Your task to perform on an android device: see creations saved in the google photos Image 0: 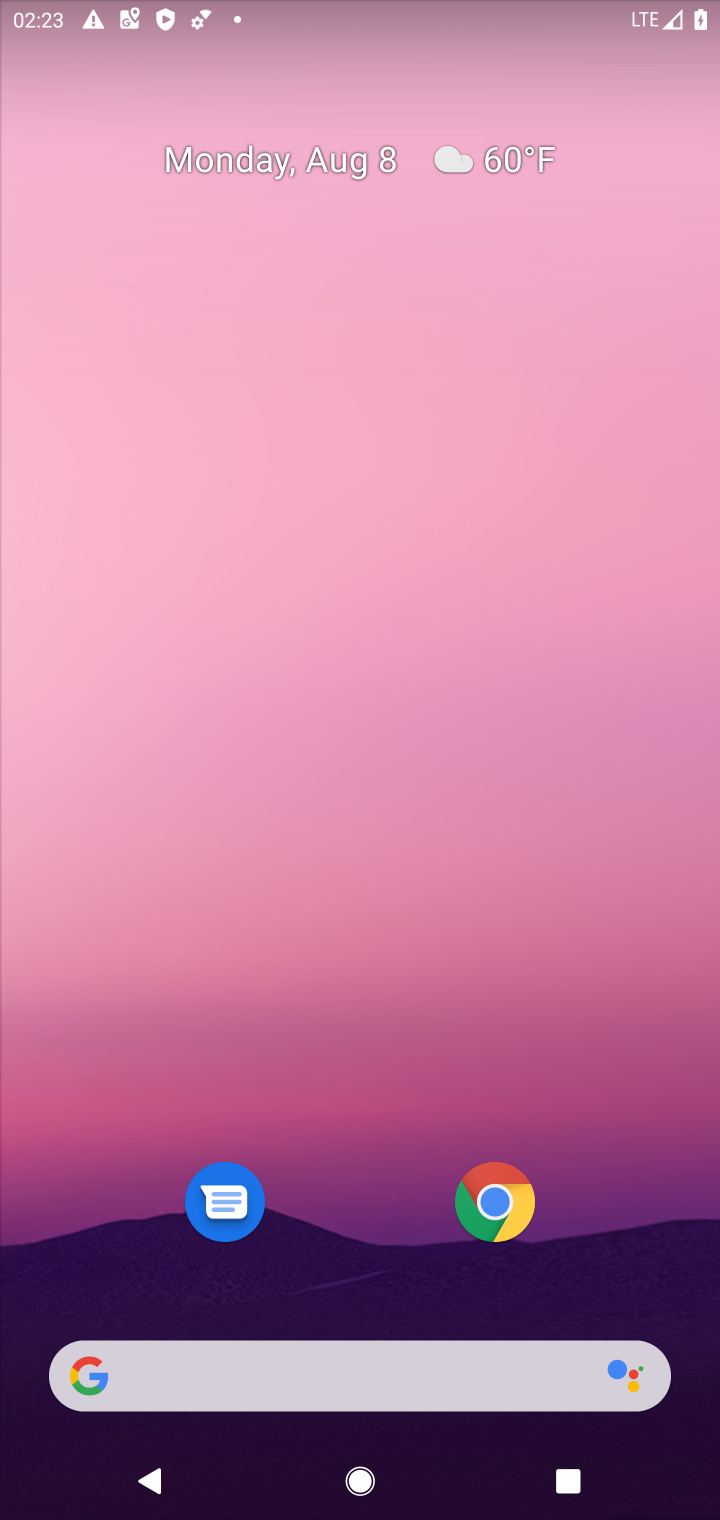
Step 0: drag from (277, 931) to (273, 270)
Your task to perform on an android device: see creations saved in the google photos Image 1: 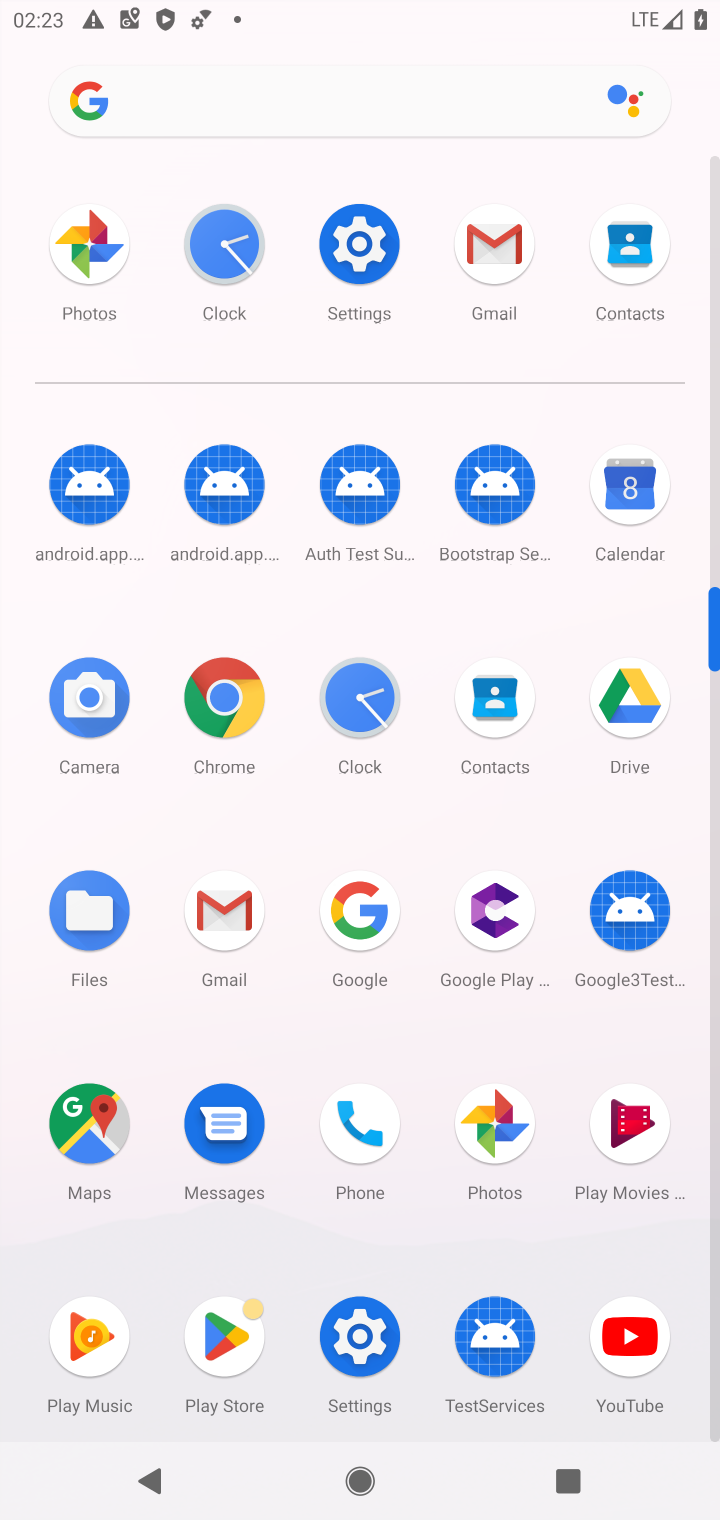
Step 1: click (490, 1136)
Your task to perform on an android device: see creations saved in the google photos Image 2: 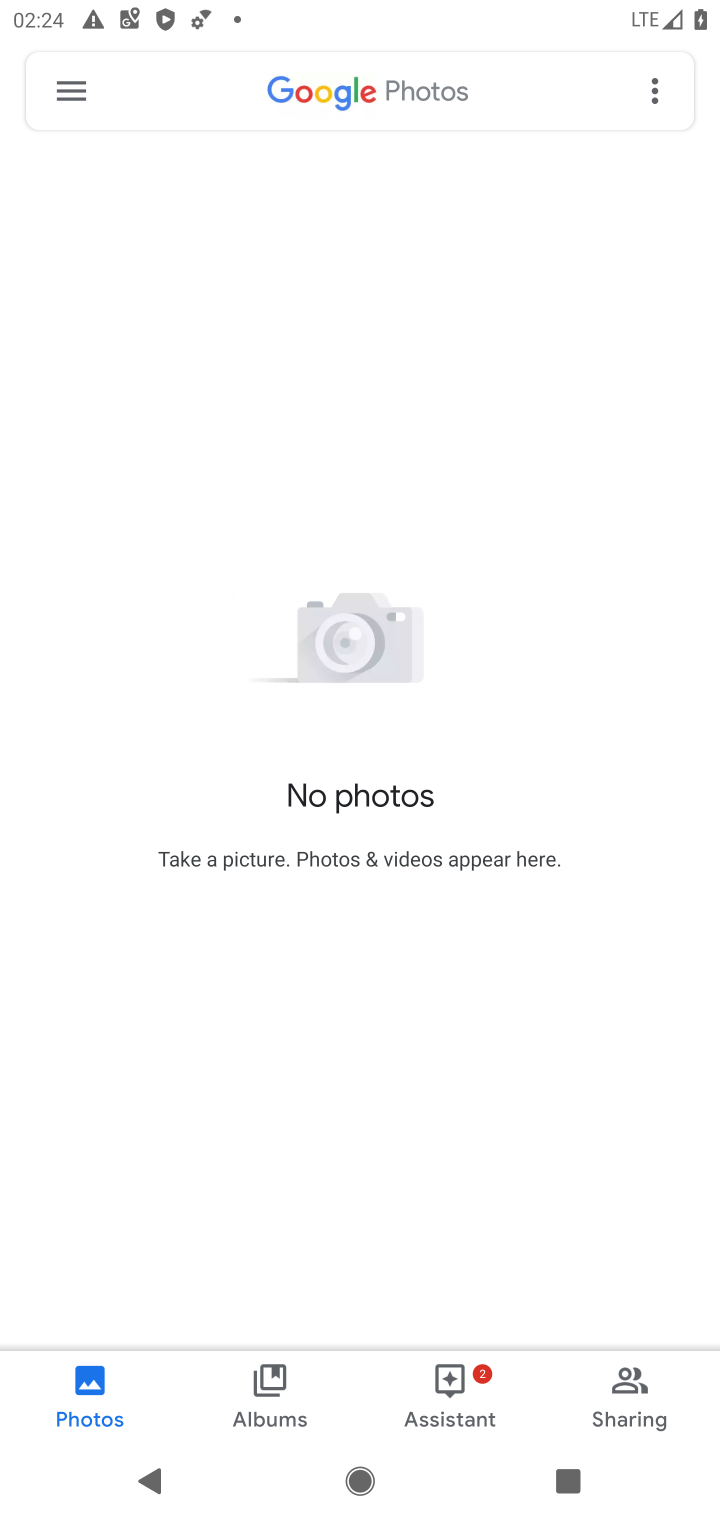
Step 2: click (345, 90)
Your task to perform on an android device: see creations saved in the google photos Image 3: 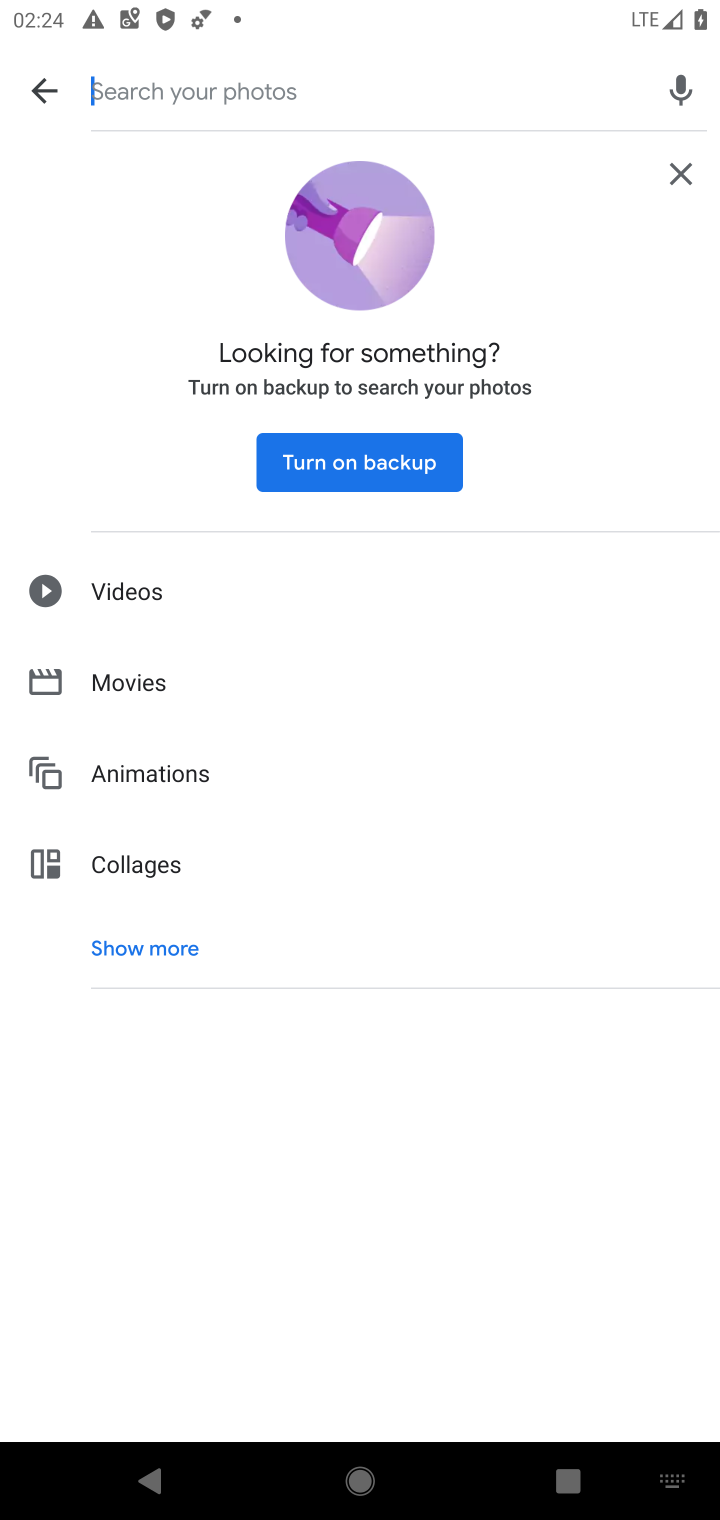
Step 3: click (166, 938)
Your task to perform on an android device: see creations saved in the google photos Image 4: 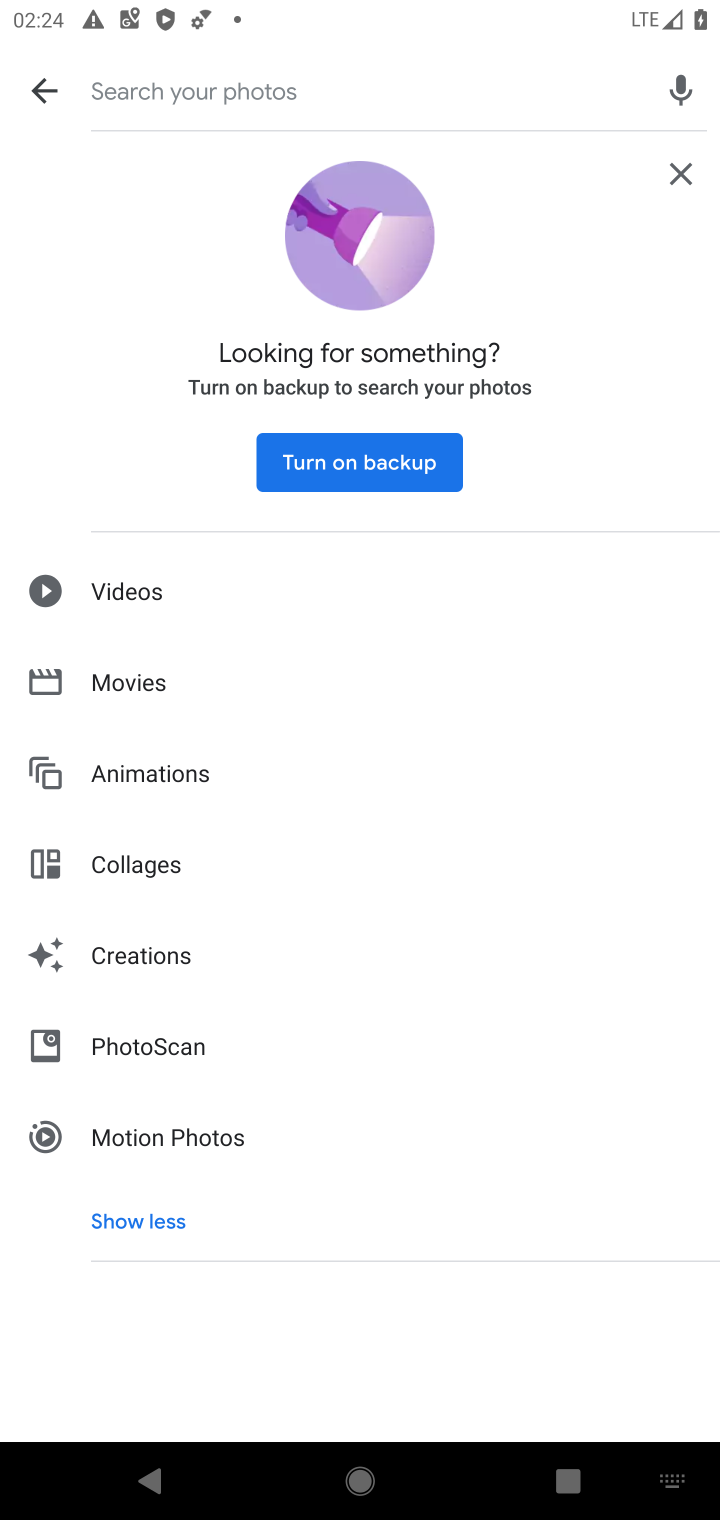
Step 4: click (149, 948)
Your task to perform on an android device: see creations saved in the google photos Image 5: 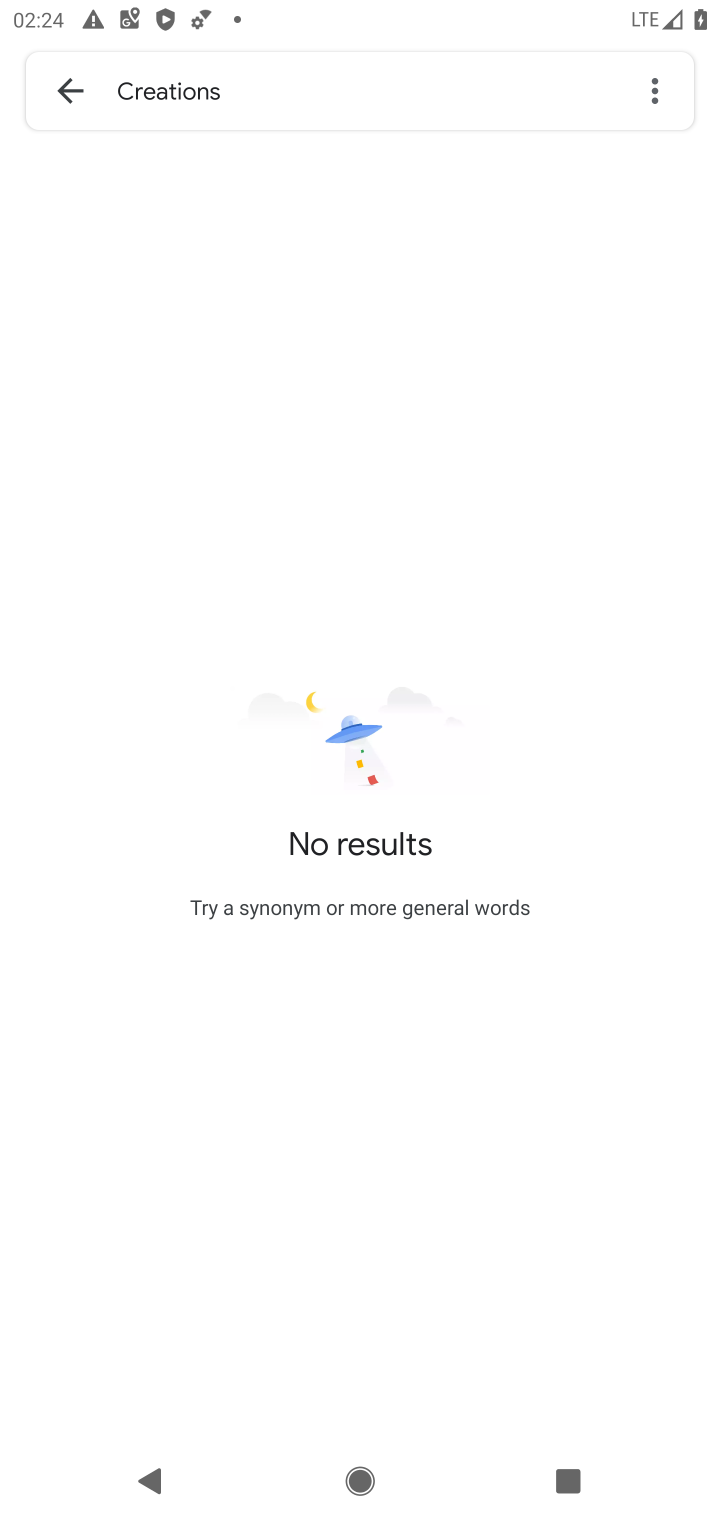
Step 5: task complete